Your task to perform on an android device: empty trash in the gmail app Image 0: 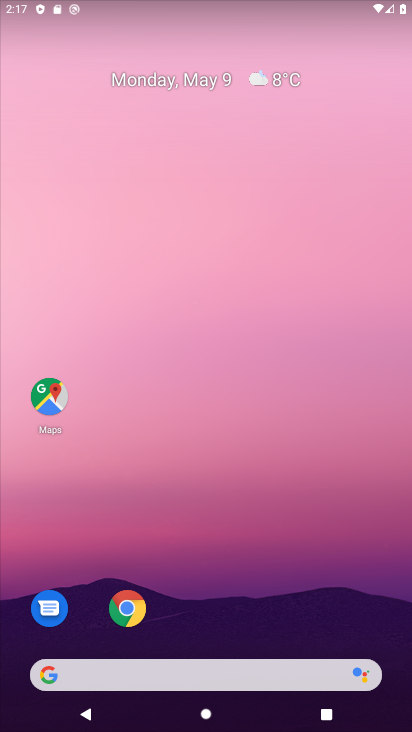
Step 0: drag from (146, 625) to (214, 287)
Your task to perform on an android device: empty trash in the gmail app Image 1: 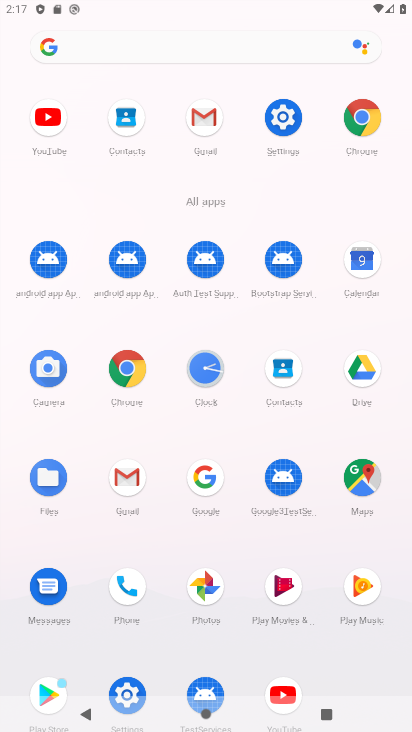
Step 1: click (196, 123)
Your task to perform on an android device: empty trash in the gmail app Image 2: 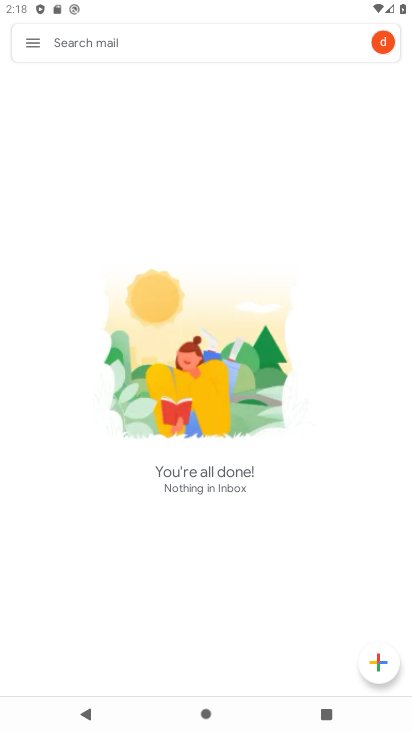
Step 2: click (41, 39)
Your task to perform on an android device: empty trash in the gmail app Image 3: 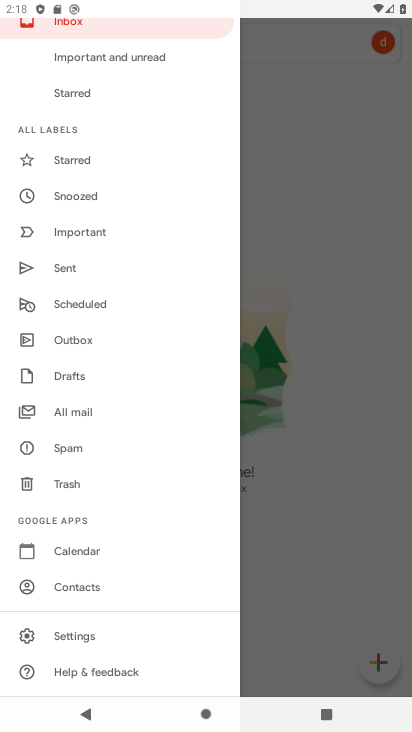
Step 3: click (88, 483)
Your task to perform on an android device: empty trash in the gmail app Image 4: 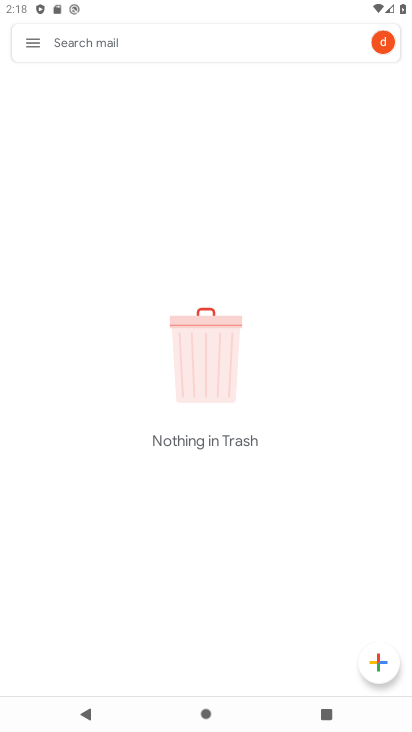
Step 4: task complete